Your task to perform on an android device: refresh tabs in the chrome app Image 0: 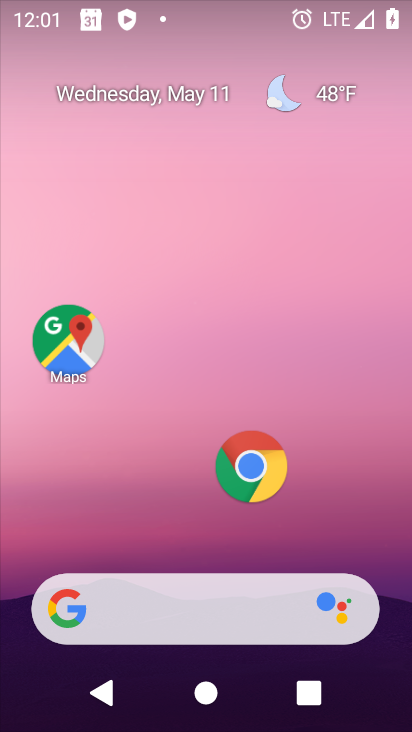
Step 0: click (264, 482)
Your task to perform on an android device: refresh tabs in the chrome app Image 1: 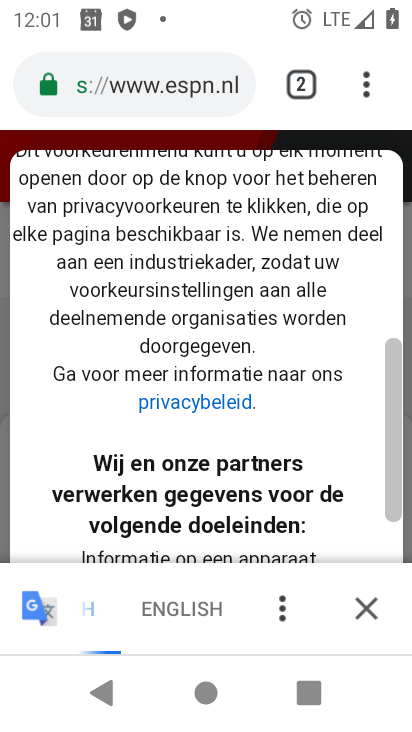
Step 1: click (364, 87)
Your task to perform on an android device: refresh tabs in the chrome app Image 2: 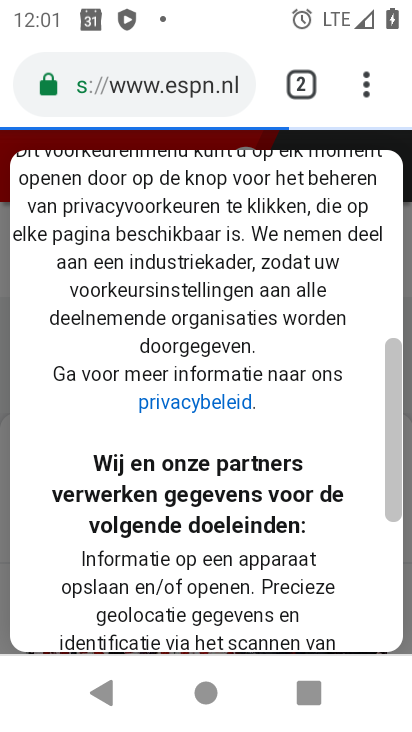
Step 2: task complete